Your task to perform on an android device: Search for "macbook" on costco, select the first entry, add it to the cart, then select checkout. Image 0: 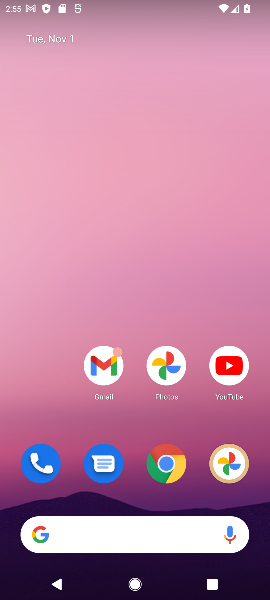
Step 0: drag from (130, 427) to (171, 144)
Your task to perform on an android device: Search for "macbook" on costco, select the first entry, add it to the cart, then select checkout. Image 1: 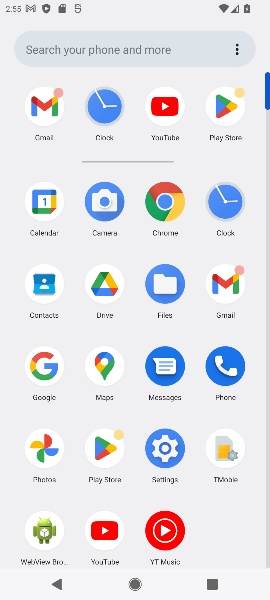
Step 1: click (164, 202)
Your task to perform on an android device: Search for "macbook" on costco, select the first entry, add it to the cart, then select checkout. Image 2: 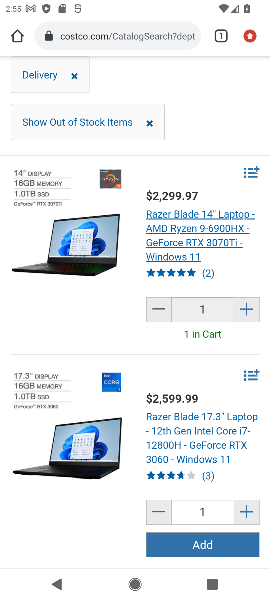
Step 2: drag from (184, 76) to (185, 392)
Your task to perform on an android device: Search for "macbook" on costco, select the first entry, add it to the cart, then select checkout. Image 3: 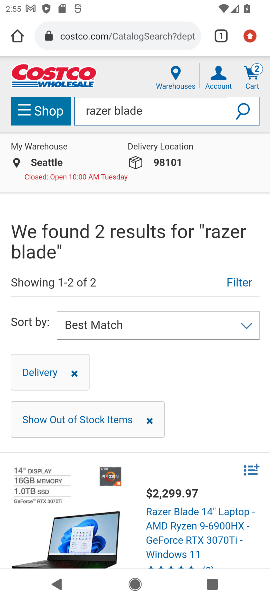
Step 3: click (187, 101)
Your task to perform on an android device: Search for "macbook" on costco, select the first entry, add it to the cart, then select checkout. Image 4: 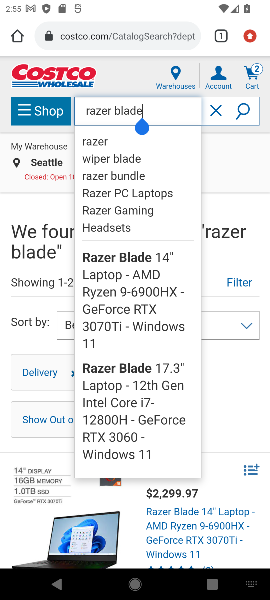
Step 4: click (221, 104)
Your task to perform on an android device: Search for "macbook" on costco, select the first entry, add it to the cart, then select checkout. Image 5: 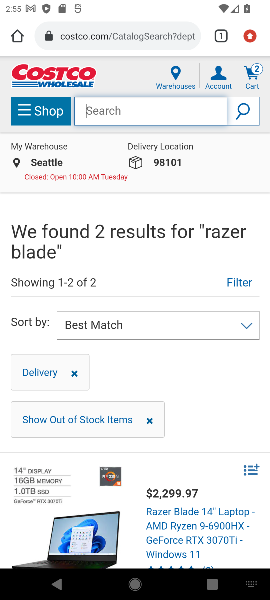
Step 5: type "macbook"
Your task to perform on an android device: Search for "macbook" on costco, select the first entry, add it to the cart, then select checkout. Image 6: 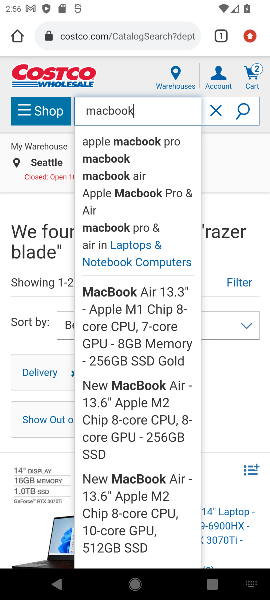
Step 6: press enter
Your task to perform on an android device: Search for "macbook" on costco, select the first entry, add it to the cart, then select checkout. Image 7: 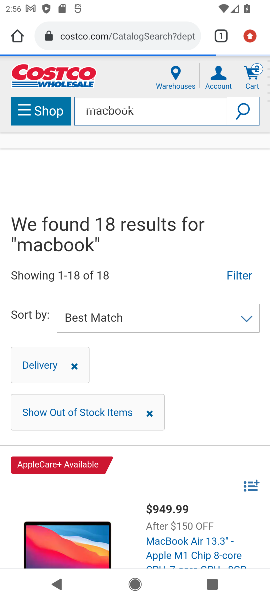
Step 7: drag from (172, 465) to (199, 153)
Your task to perform on an android device: Search for "macbook" on costco, select the first entry, add it to the cart, then select checkout. Image 8: 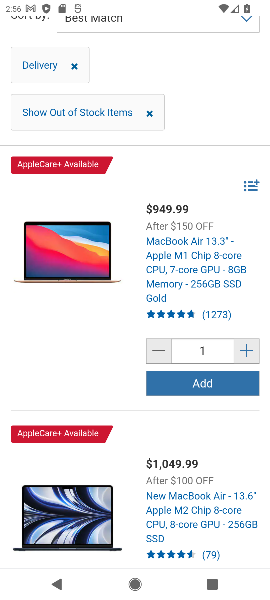
Step 8: click (225, 386)
Your task to perform on an android device: Search for "macbook" on costco, select the first entry, add it to the cart, then select checkout. Image 9: 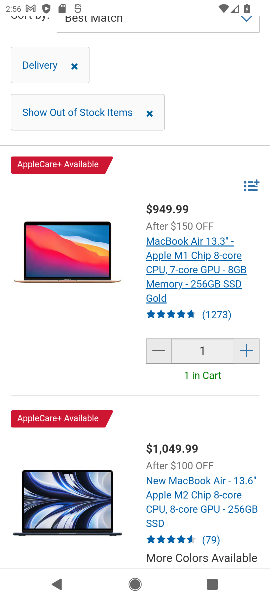
Step 9: click (217, 376)
Your task to perform on an android device: Search for "macbook" on costco, select the first entry, add it to the cart, then select checkout. Image 10: 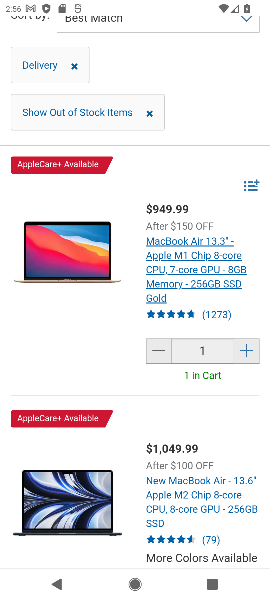
Step 10: drag from (181, 324) to (117, 431)
Your task to perform on an android device: Search for "macbook" on costco, select the first entry, add it to the cart, then select checkout. Image 11: 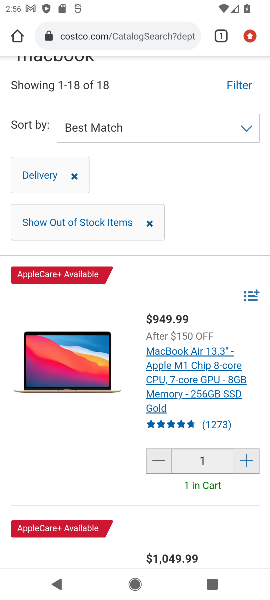
Step 11: drag from (113, 174) to (106, 433)
Your task to perform on an android device: Search for "macbook" on costco, select the first entry, add it to the cart, then select checkout. Image 12: 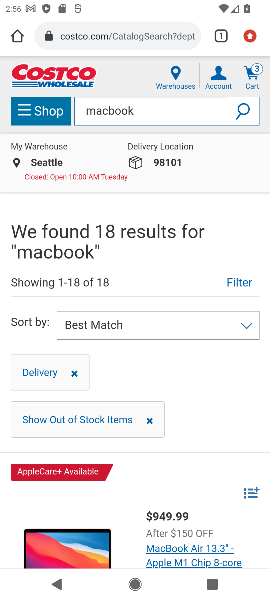
Step 12: click (247, 62)
Your task to perform on an android device: Search for "macbook" on costco, select the first entry, add it to the cart, then select checkout. Image 13: 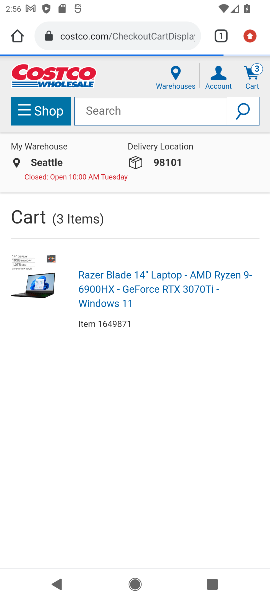
Step 13: drag from (169, 415) to (177, 299)
Your task to perform on an android device: Search for "macbook" on costco, select the first entry, add it to the cart, then select checkout. Image 14: 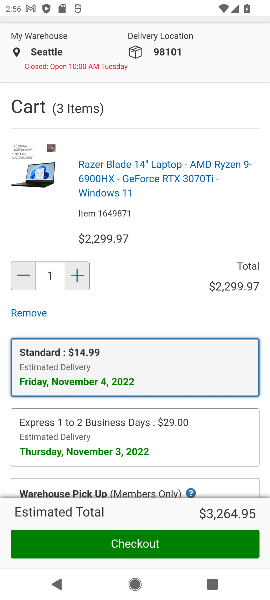
Step 14: click (182, 544)
Your task to perform on an android device: Search for "macbook" on costco, select the first entry, add it to the cart, then select checkout. Image 15: 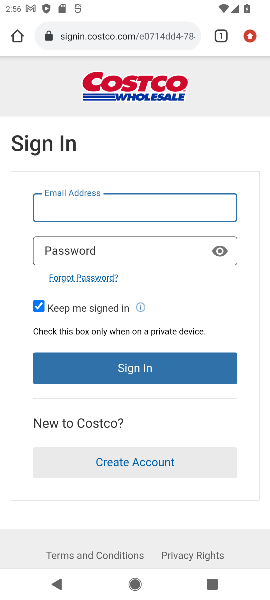
Step 15: task complete